Your task to perform on an android device: add a contact Image 0: 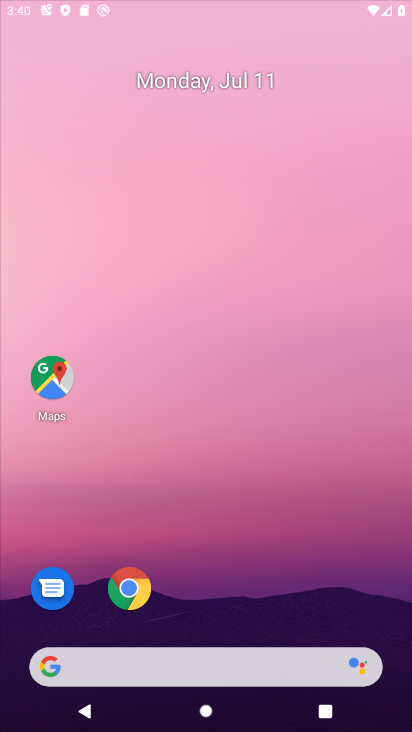
Step 0: press home button
Your task to perform on an android device: add a contact Image 1: 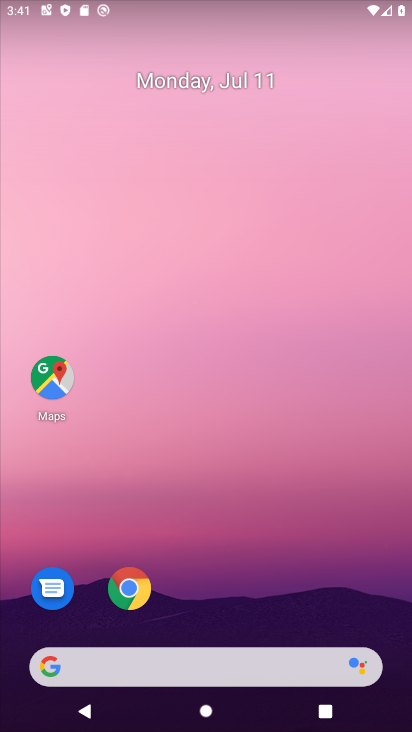
Step 1: drag from (322, 627) to (203, 7)
Your task to perform on an android device: add a contact Image 2: 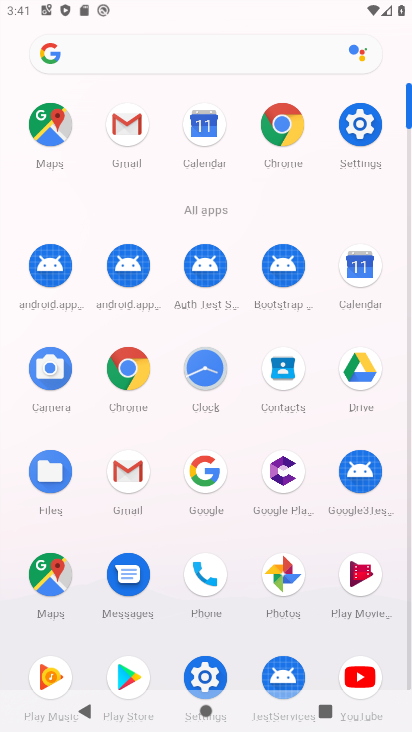
Step 2: click (290, 375)
Your task to perform on an android device: add a contact Image 3: 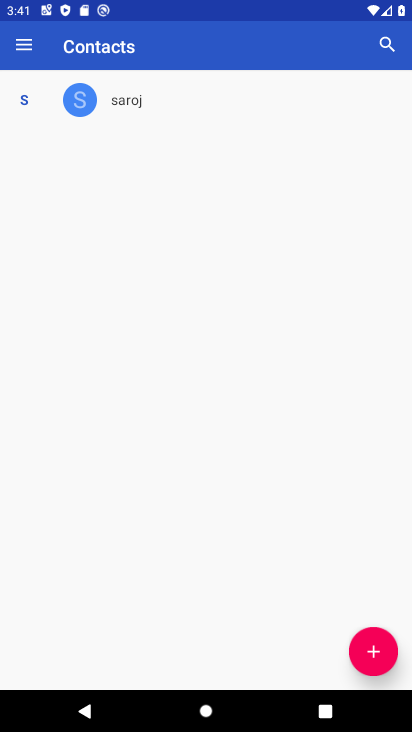
Step 3: click (356, 654)
Your task to perform on an android device: add a contact Image 4: 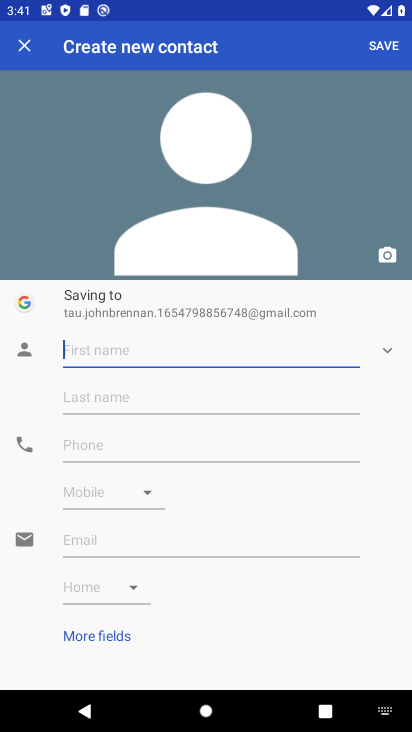
Step 4: type "ghghghg"
Your task to perform on an android device: add a contact Image 5: 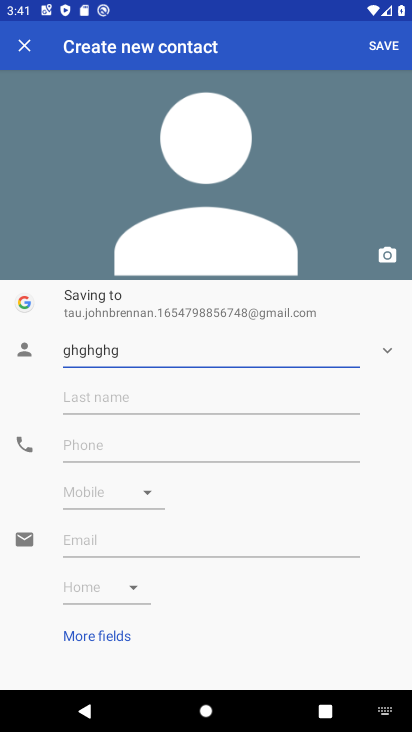
Step 5: click (140, 443)
Your task to perform on an android device: add a contact Image 6: 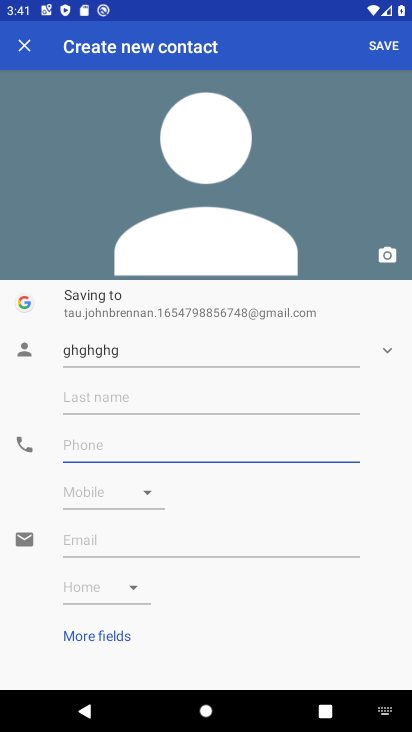
Step 6: type "77677"
Your task to perform on an android device: add a contact Image 7: 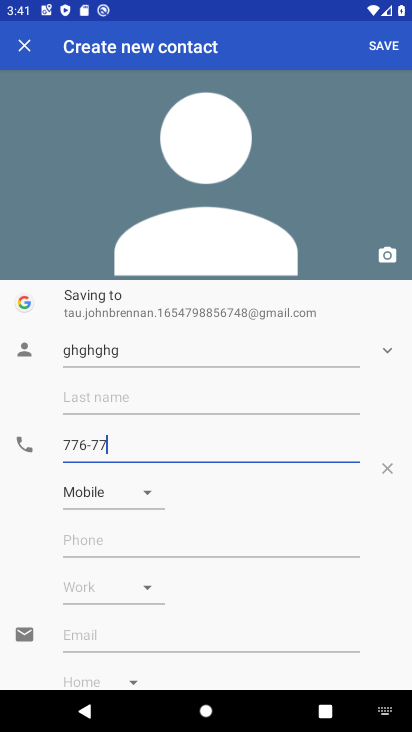
Step 7: click (390, 48)
Your task to perform on an android device: add a contact Image 8: 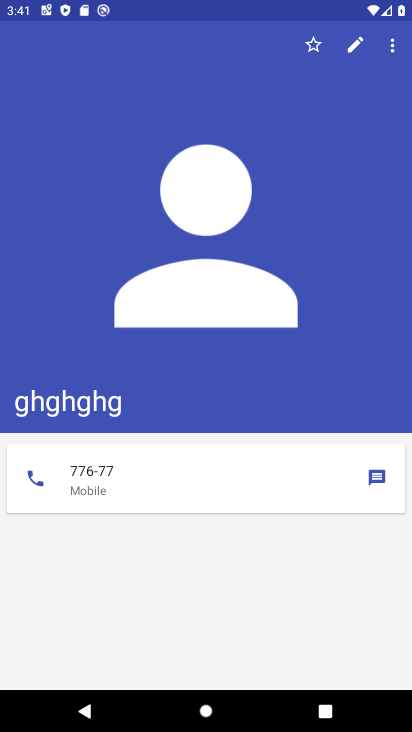
Step 8: task complete